Your task to perform on an android device: Open ESPN.com Image 0: 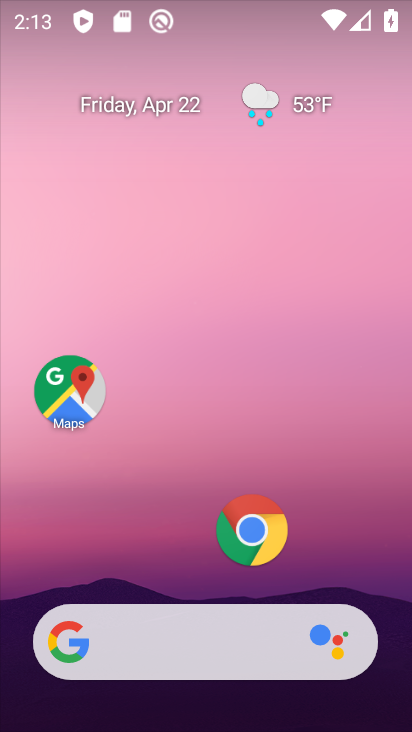
Step 0: click (191, 121)
Your task to perform on an android device: Open ESPN.com Image 1: 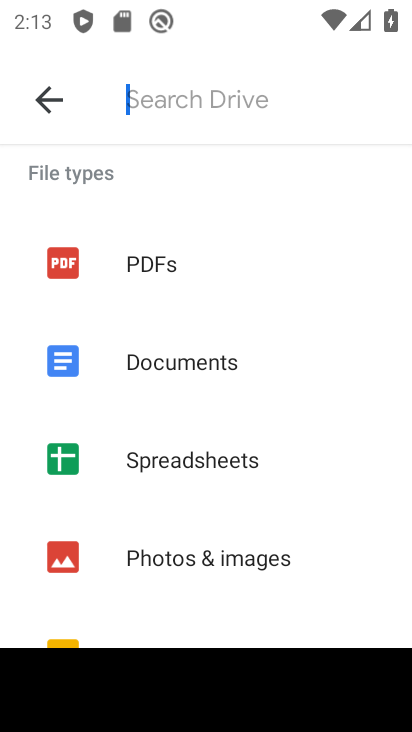
Step 1: press home button
Your task to perform on an android device: Open ESPN.com Image 2: 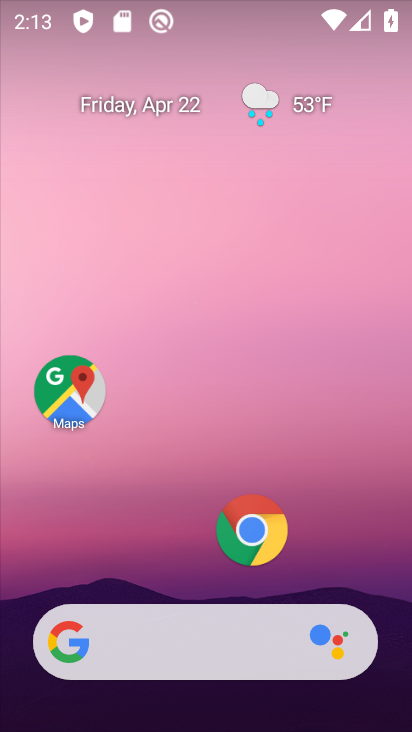
Step 2: click (263, 513)
Your task to perform on an android device: Open ESPN.com Image 3: 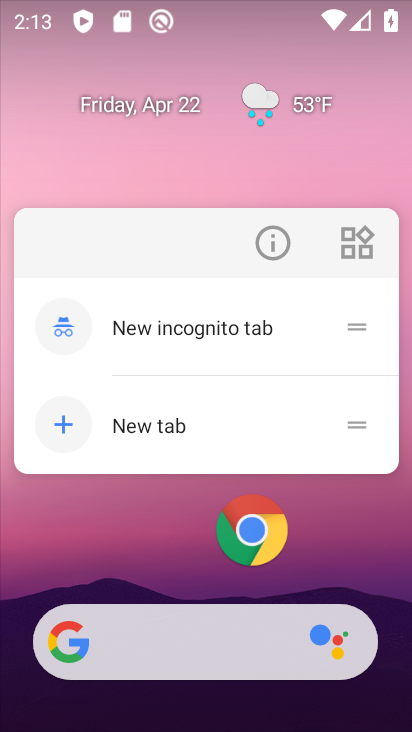
Step 3: click (268, 544)
Your task to perform on an android device: Open ESPN.com Image 4: 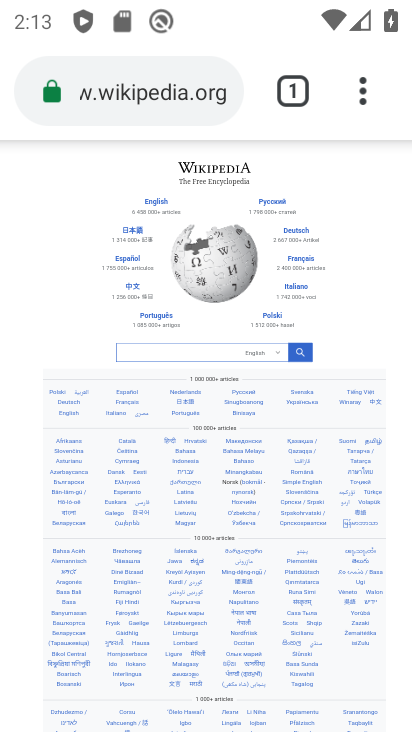
Step 4: click (111, 83)
Your task to perform on an android device: Open ESPN.com Image 5: 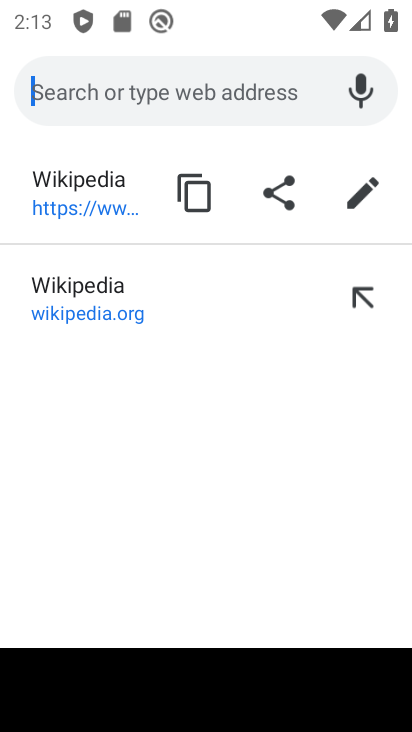
Step 5: type "espn.com"
Your task to perform on an android device: Open ESPN.com Image 6: 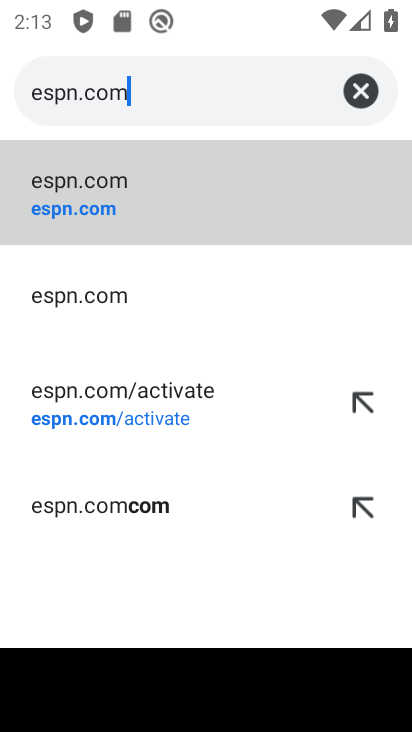
Step 6: click (138, 208)
Your task to perform on an android device: Open ESPN.com Image 7: 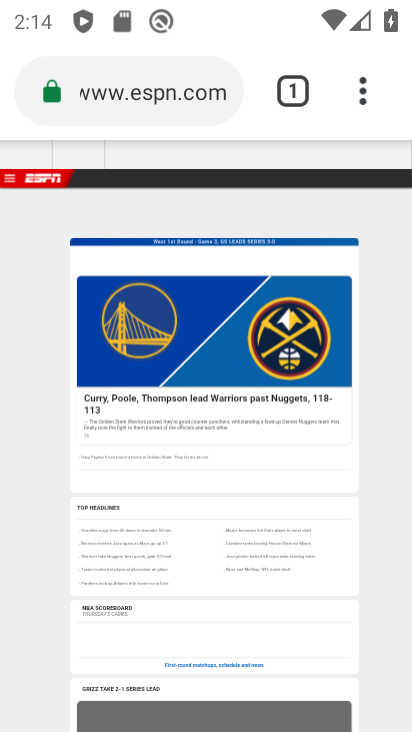
Step 7: task complete